Your task to perform on an android device: Is it going to rain this weekend? Image 0: 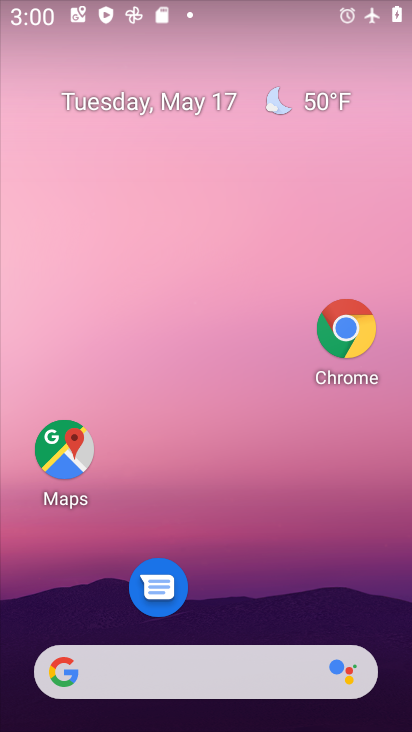
Step 0: drag from (271, 558) to (271, 266)
Your task to perform on an android device: Is it going to rain this weekend? Image 1: 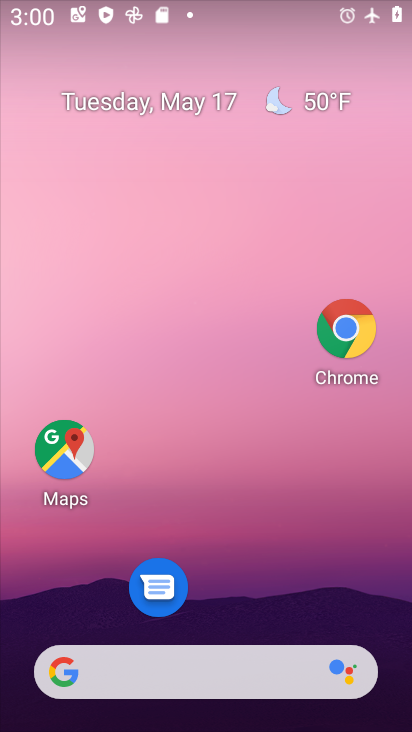
Step 1: drag from (225, 553) to (254, 218)
Your task to perform on an android device: Is it going to rain this weekend? Image 2: 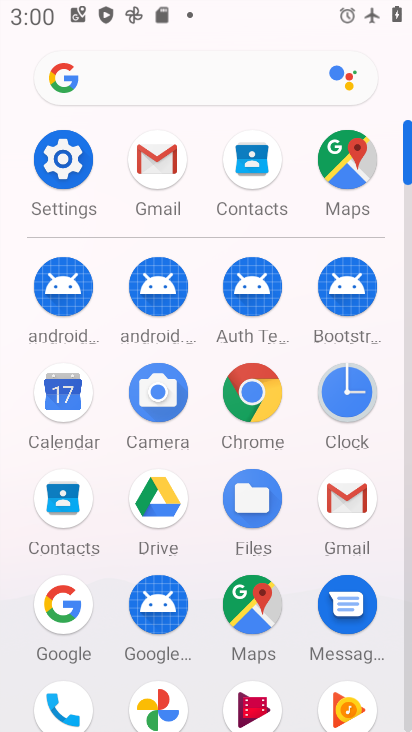
Step 2: click (52, 177)
Your task to perform on an android device: Is it going to rain this weekend? Image 3: 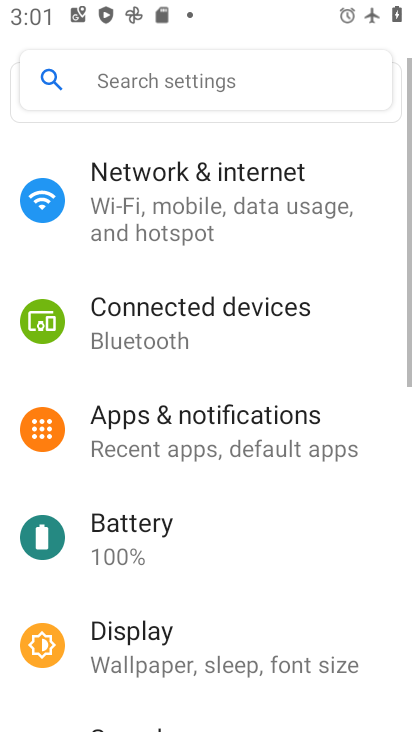
Step 3: click (308, 163)
Your task to perform on an android device: Is it going to rain this weekend? Image 4: 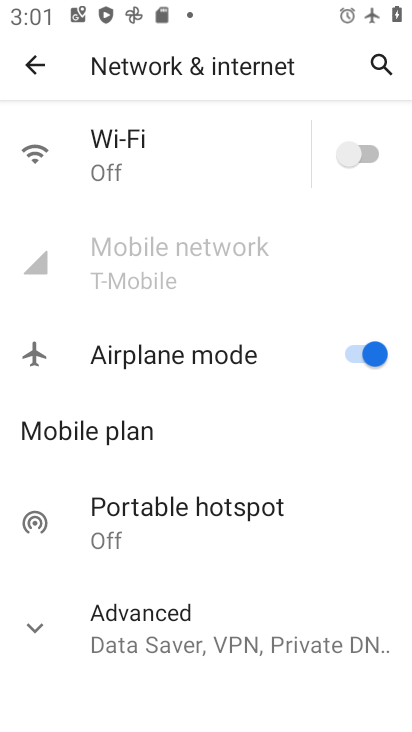
Step 4: click (350, 361)
Your task to perform on an android device: Is it going to rain this weekend? Image 5: 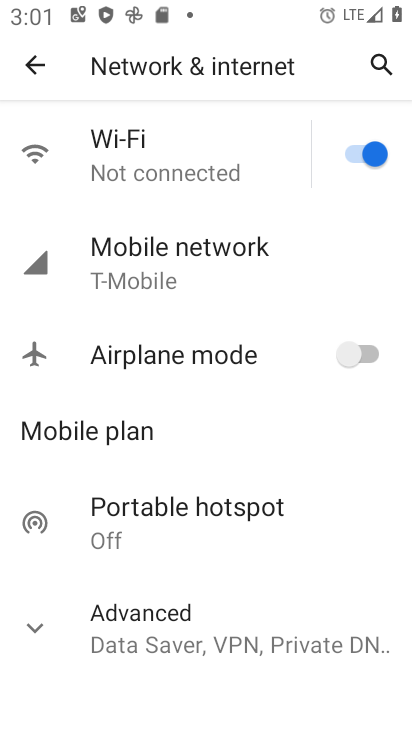
Step 5: press home button
Your task to perform on an android device: Is it going to rain this weekend? Image 6: 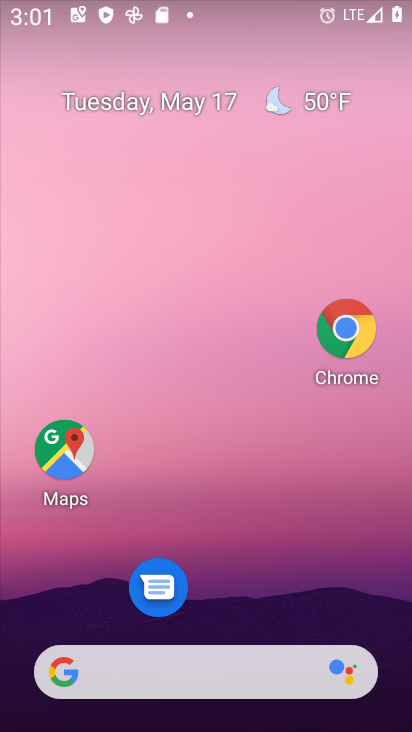
Step 6: click (203, 670)
Your task to perform on an android device: Is it going to rain this weekend? Image 7: 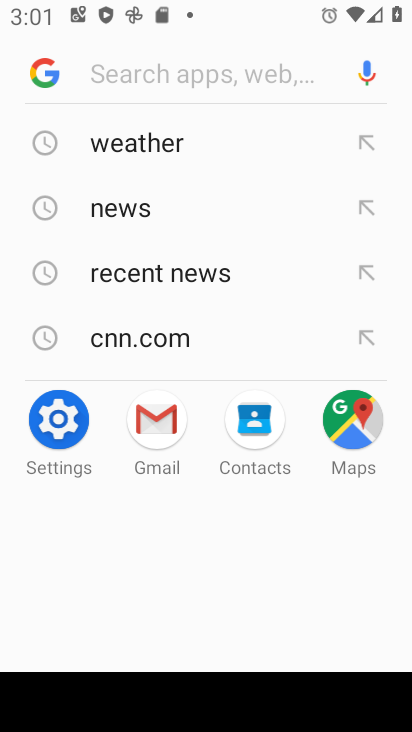
Step 7: click (167, 148)
Your task to perform on an android device: Is it going to rain this weekend? Image 8: 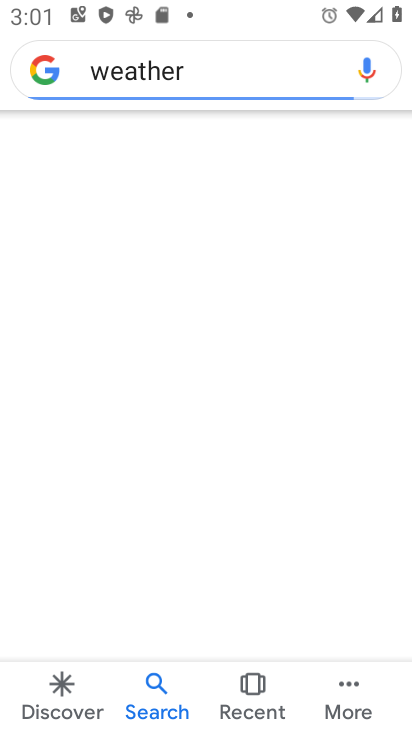
Step 8: task complete